Your task to perform on an android device: set the stopwatch Image 0: 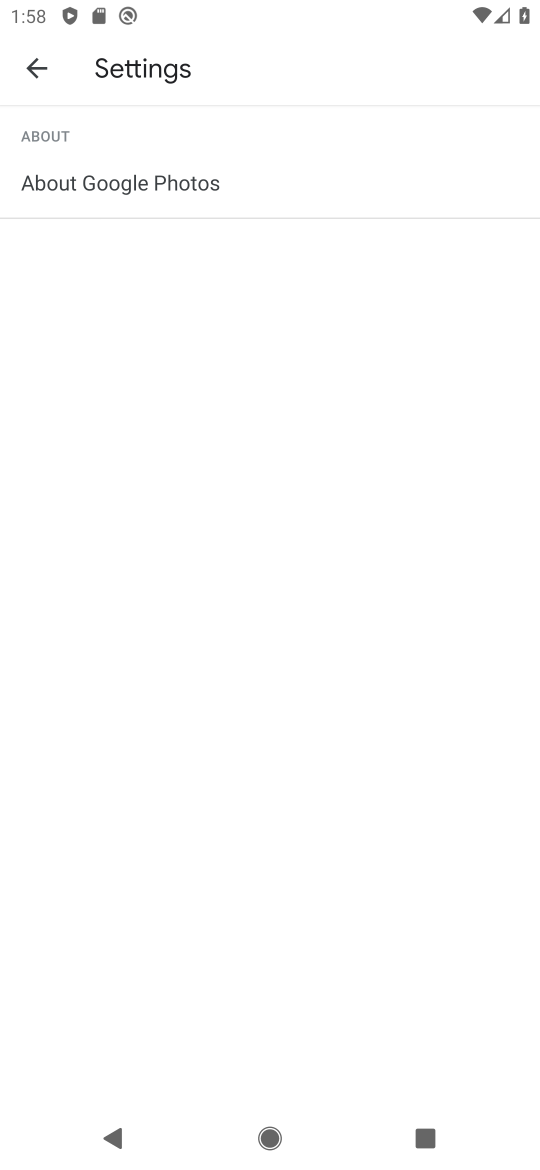
Step 0: press home button
Your task to perform on an android device: set the stopwatch Image 1: 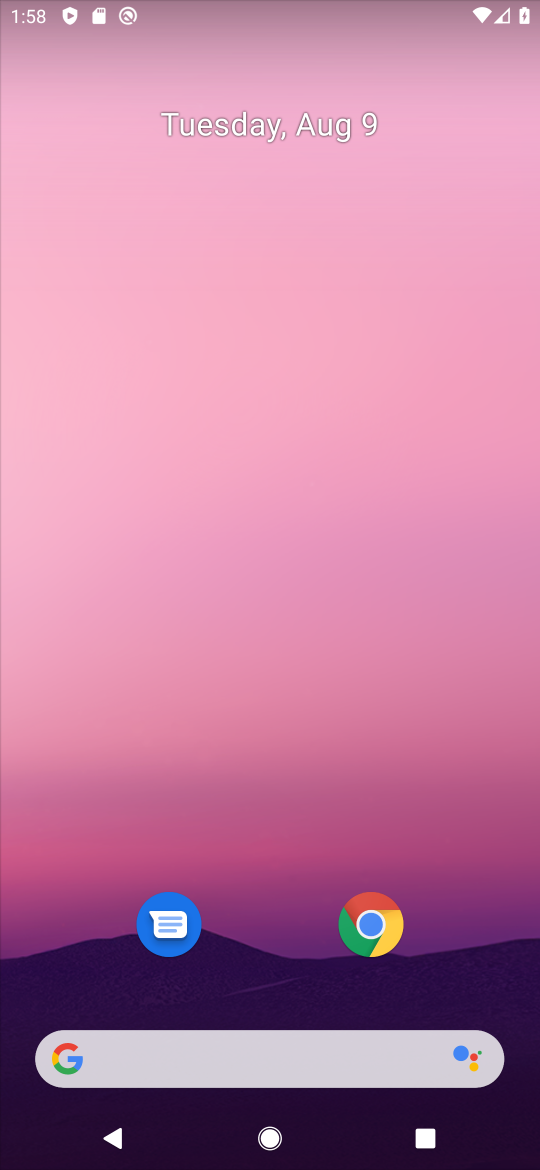
Step 1: drag from (491, 1119) to (433, 57)
Your task to perform on an android device: set the stopwatch Image 2: 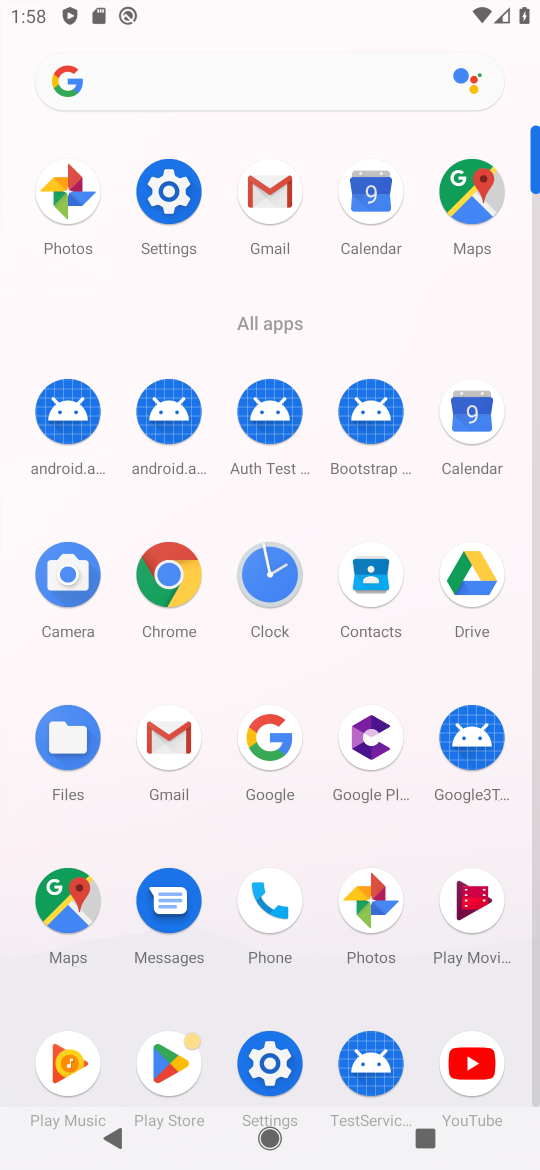
Step 2: click (279, 569)
Your task to perform on an android device: set the stopwatch Image 3: 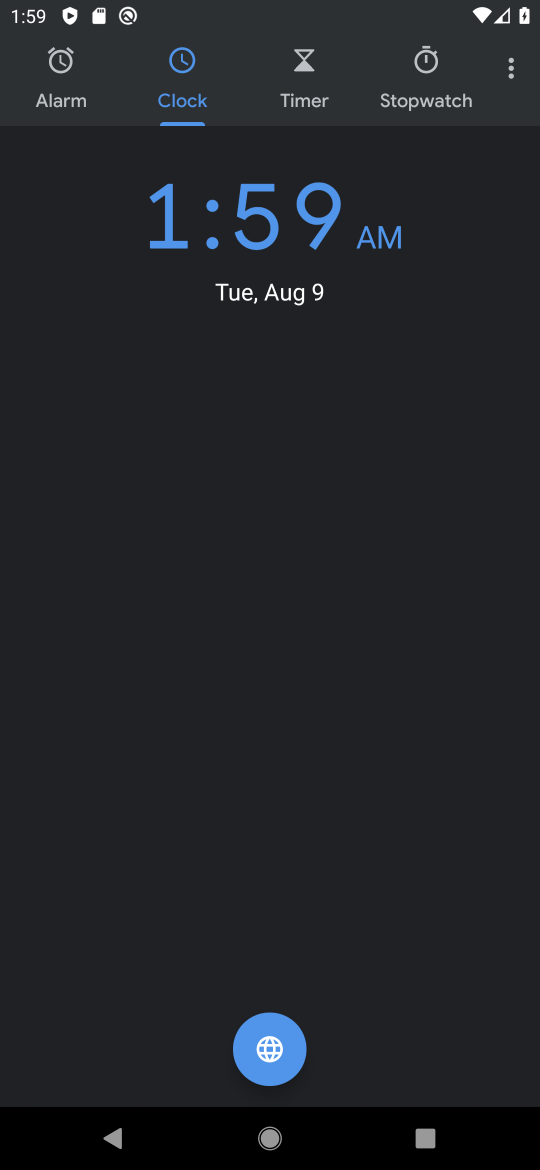
Step 3: click (407, 71)
Your task to perform on an android device: set the stopwatch Image 4: 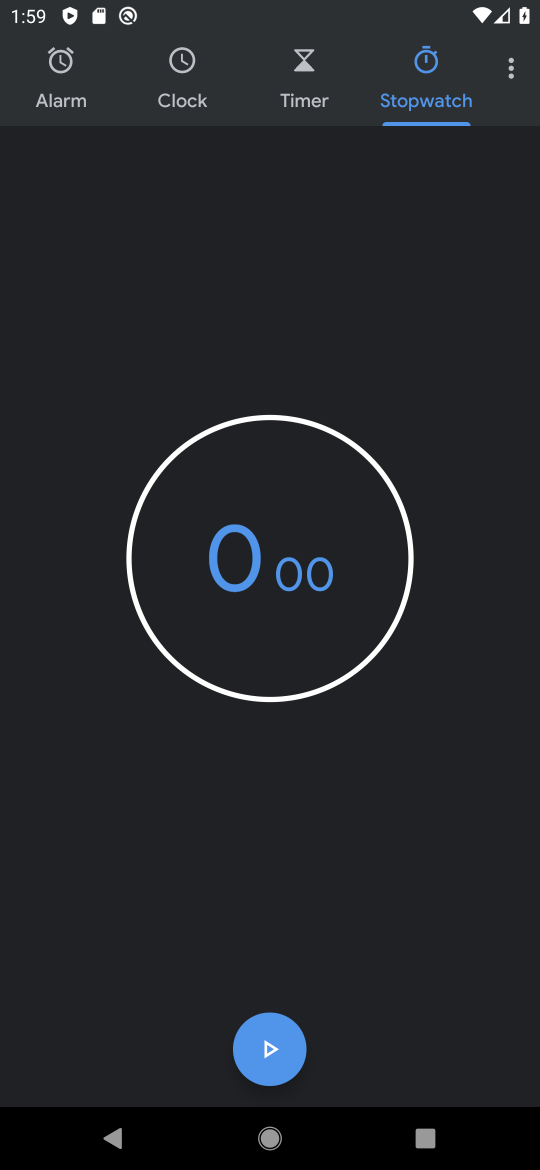
Step 4: click (262, 1044)
Your task to perform on an android device: set the stopwatch Image 5: 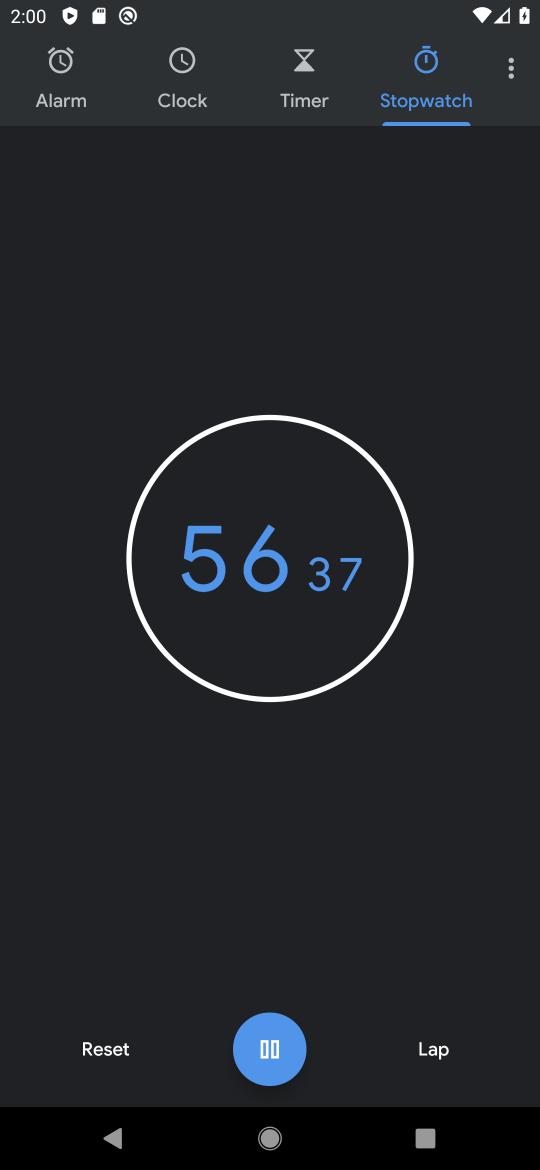
Step 5: click (196, 284)
Your task to perform on an android device: set the stopwatch Image 6: 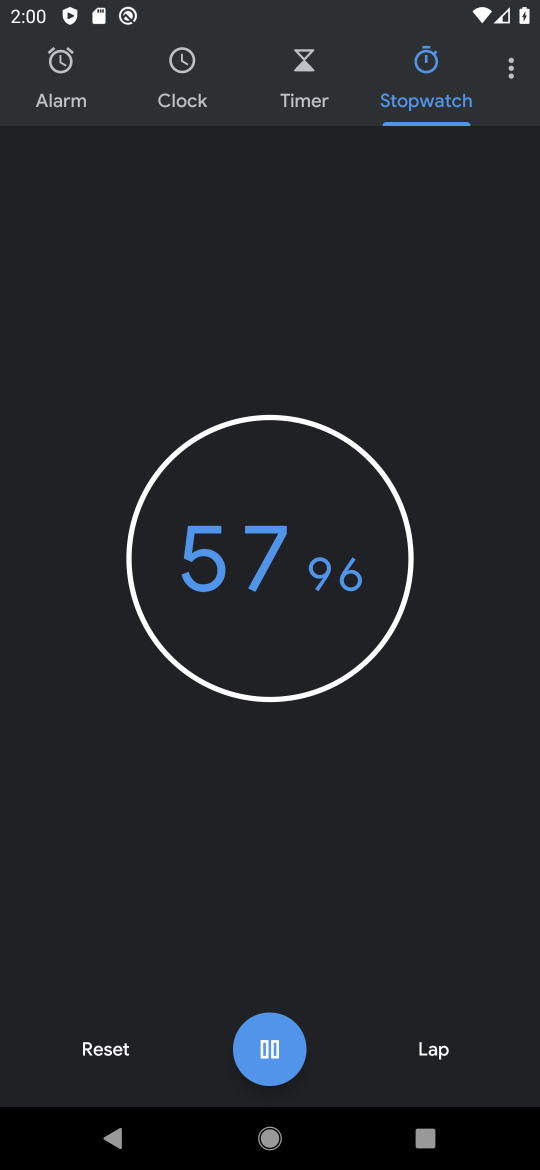
Step 6: task complete